Your task to perform on an android device: turn off priority inbox in the gmail app Image 0: 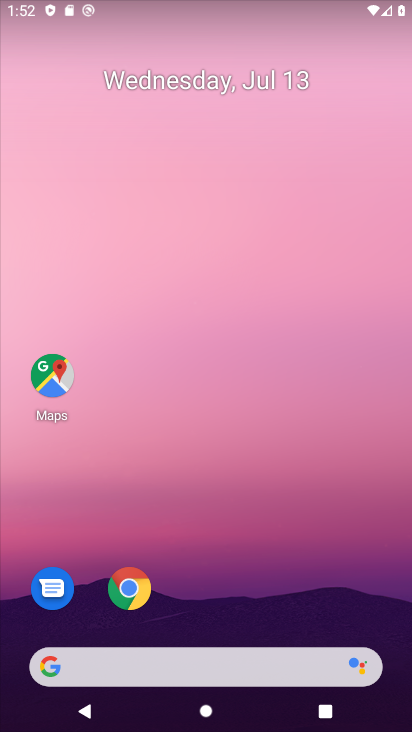
Step 0: drag from (233, 171) to (237, 105)
Your task to perform on an android device: turn off priority inbox in the gmail app Image 1: 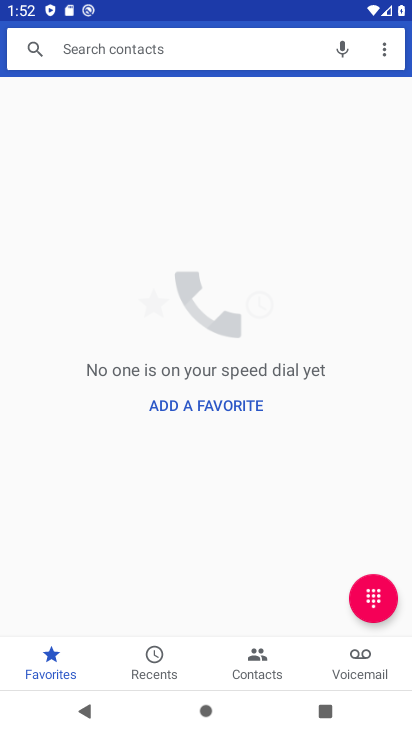
Step 1: drag from (221, 542) to (215, 236)
Your task to perform on an android device: turn off priority inbox in the gmail app Image 2: 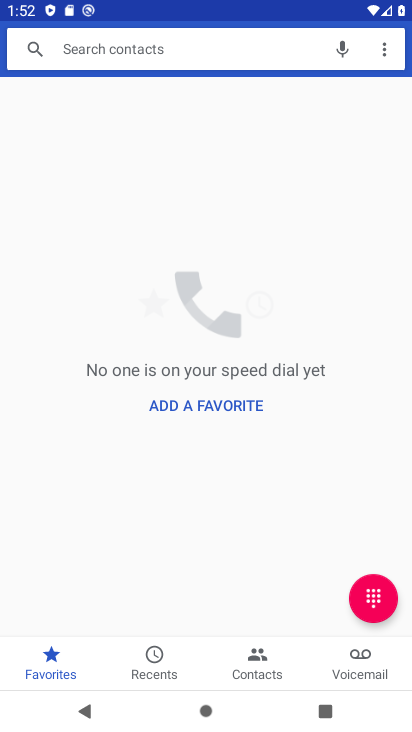
Step 2: click (243, 528)
Your task to perform on an android device: turn off priority inbox in the gmail app Image 3: 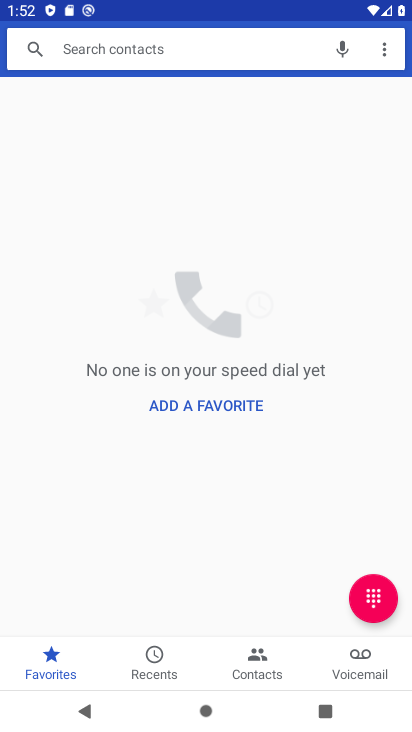
Step 3: press home button
Your task to perform on an android device: turn off priority inbox in the gmail app Image 4: 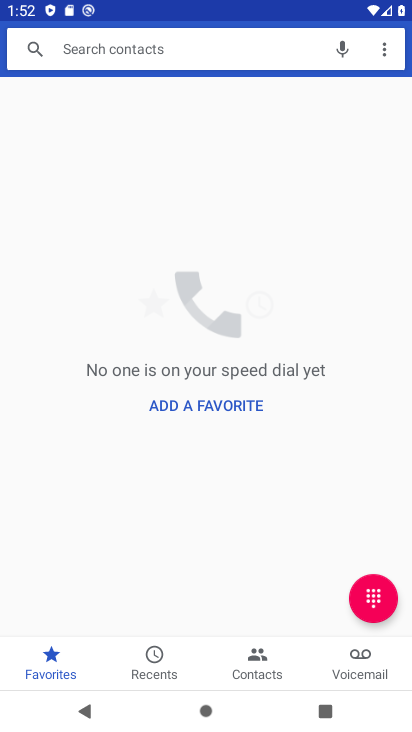
Step 4: drag from (191, 268) to (218, 82)
Your task to perform on an android device: turn off priority inbox in the gmail app Image 5: 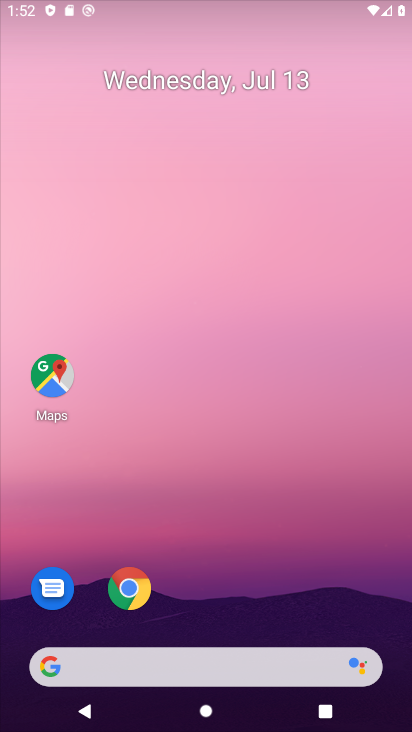
Step 5: drag from (235, 545) to (260, 97)
Your task to perform on an android device: turn off priority inbox in the gmail app Image 6: 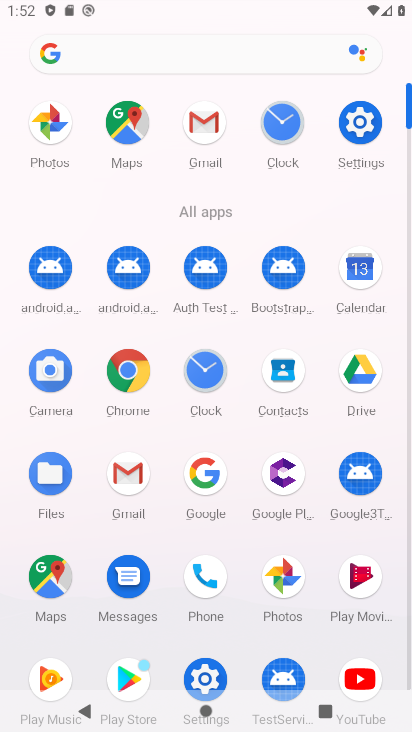
Step 6: click (124, 478)
Your task to perform on an android device: turn off priority inbox in the gmail app Image 7: 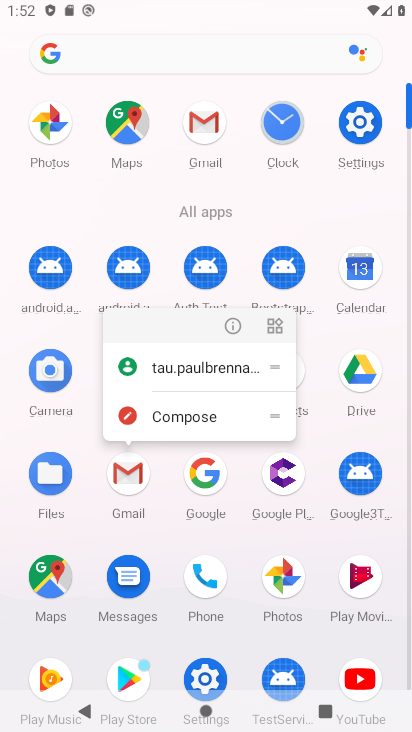
Step 7: click (230, 325)
Your task to perform on an android device: turn off priority inbox in the gmail app Image 8: 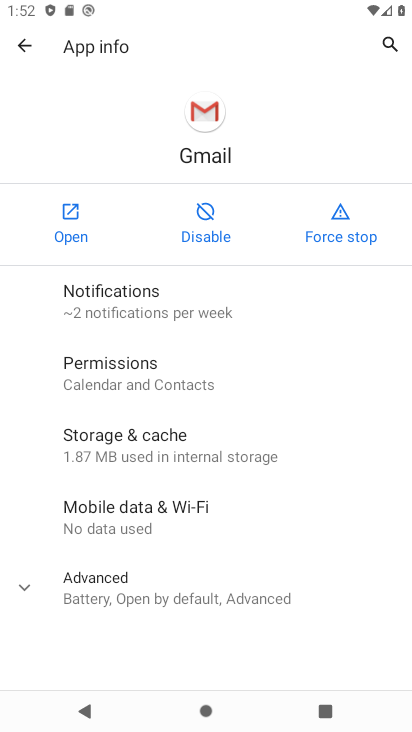
Step 8: click (66, 225)
Your task to perform on an android device: turn off priority inbox in the gmail app Image 9: 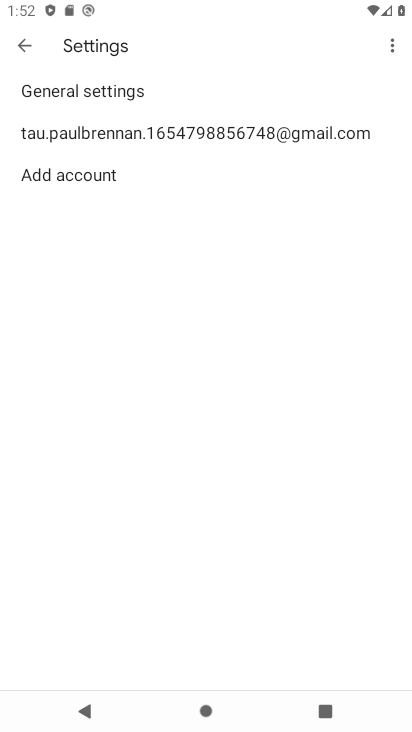
Step 9: click (156, 138)
Your task to perform on an android device: turn off priority inbox in the gmail app Image 10: 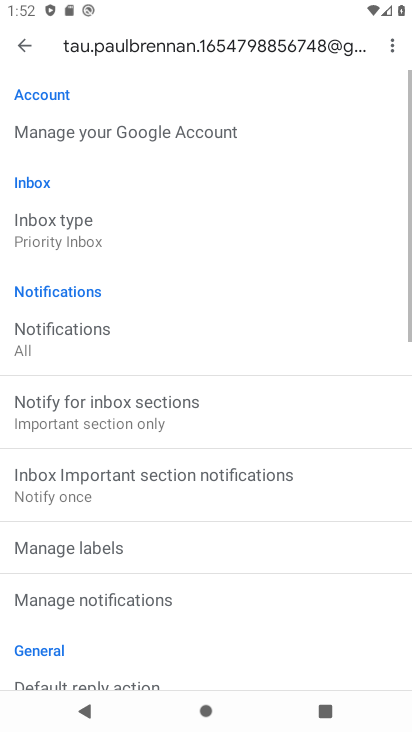
Step 10: drag from (211, 400) to (224, 168)
Your task to perform on an android device: turn off priority inbox in the gmail app Image 11: 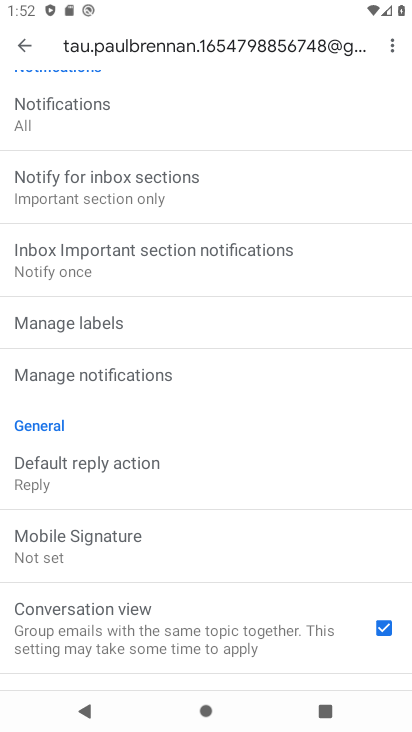
Step 11: drag from (208, 524) to (242, 186)
Your task to perform on an android device: turn off priority inbox in the gmail app Image 12: 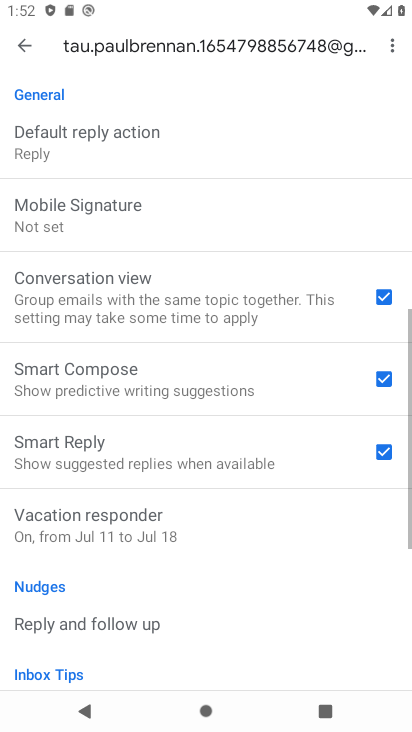
Step 12: drag from (178, 539) to (267, 126)
Your task to perform on an android device: turn off priority inbox in the gmail app Image 13: 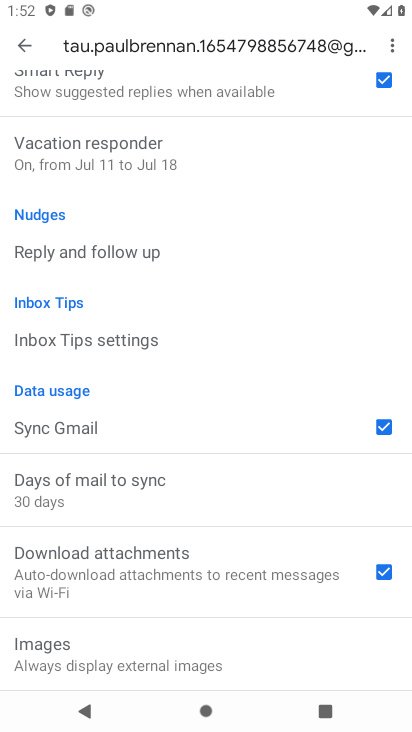
Step 13: drag from (166, 563) to (171, 308)
Your task to perform on an android device: turn off priority inbox in the gmail app Image 14: 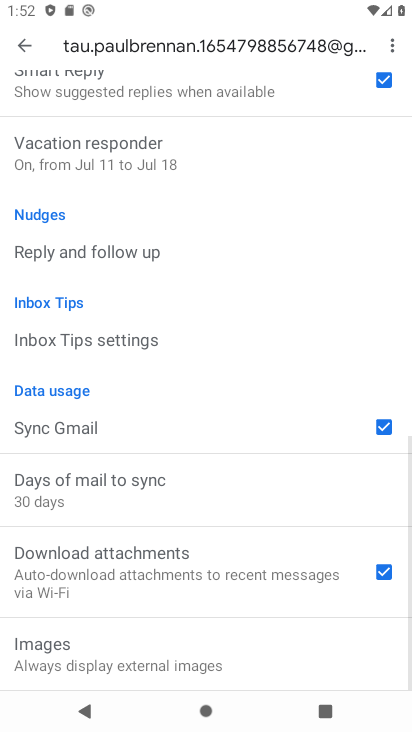
Step 14: drag from (252, 652) to (320, 287)
Your task to perform on an android device: turn off priority inbox in the gmail app Image 15: 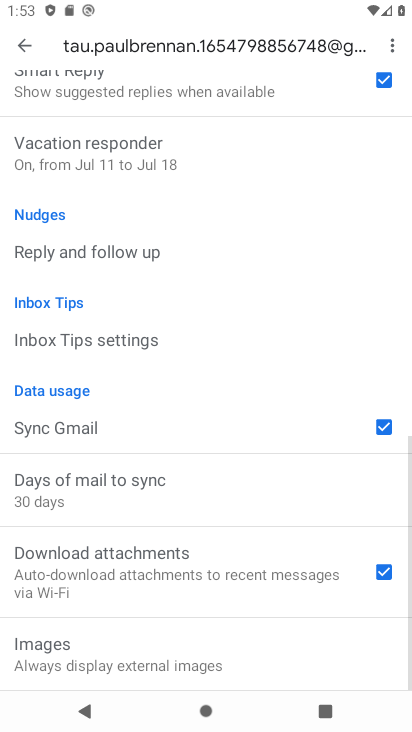
Step 15: drag from (232, 364) to (269, 720)
Your task to perform on an android device: turn off priority inbox in the gmail app Image 16: 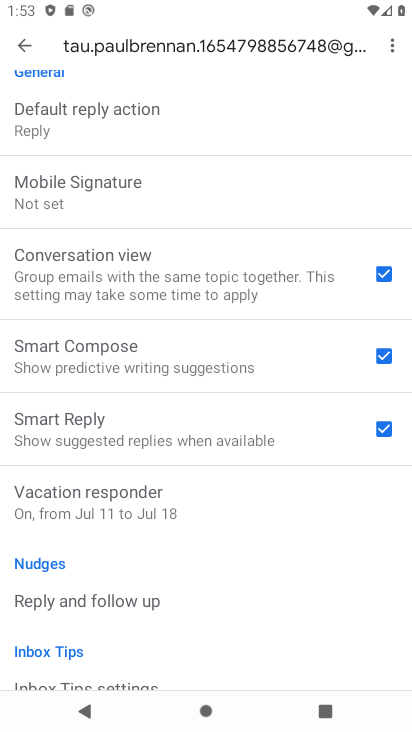
Step 16: drag from (181, 226) to (295, 654)
Your task to perform on an android device: turn off priority inbox in the gmail app Image 17: 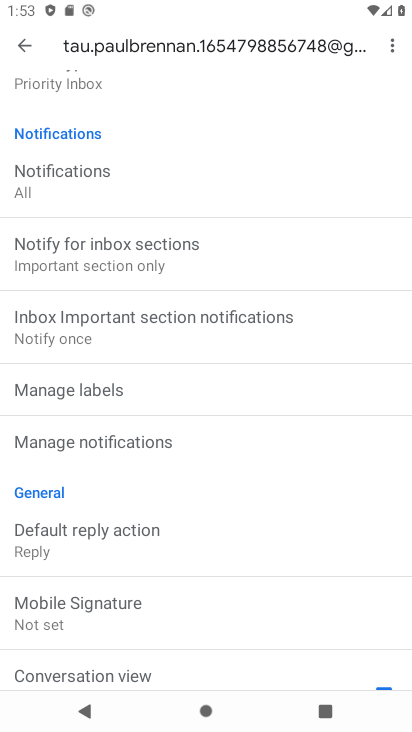
Step 17: drag from (196, 164) to (214, 678)
Your task to perform on an android device: turn off priority inbox in the gmail app Image 18: 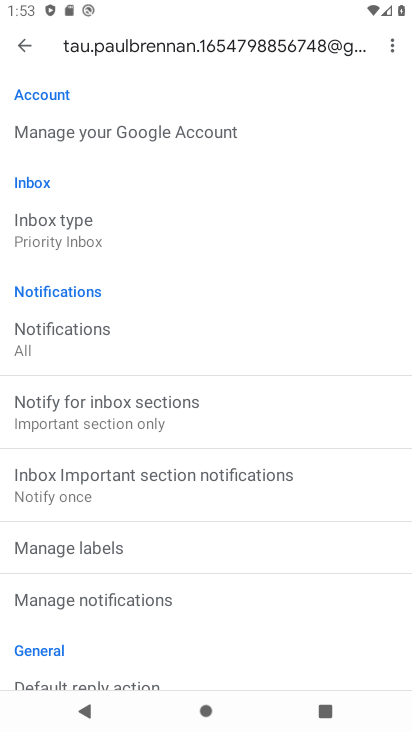
Step 18: click (81, 222)
Your task to perform on an android device: turn off priority inbox in the gmail app Image 19: 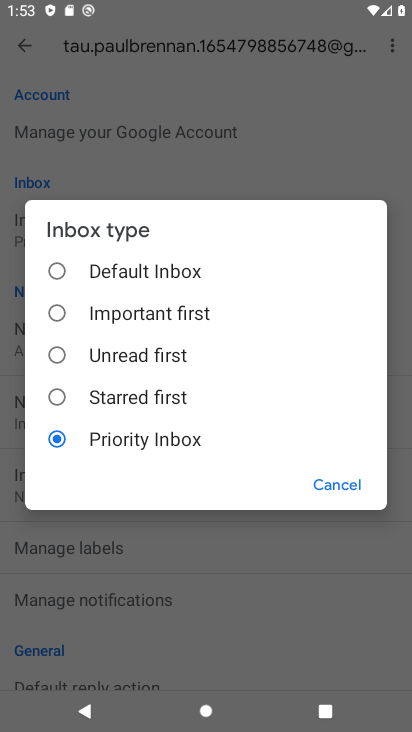
Step 19: click (97, 255)
Your task to perform on an android device: turn off priority inbox in the gmail app Image 20: 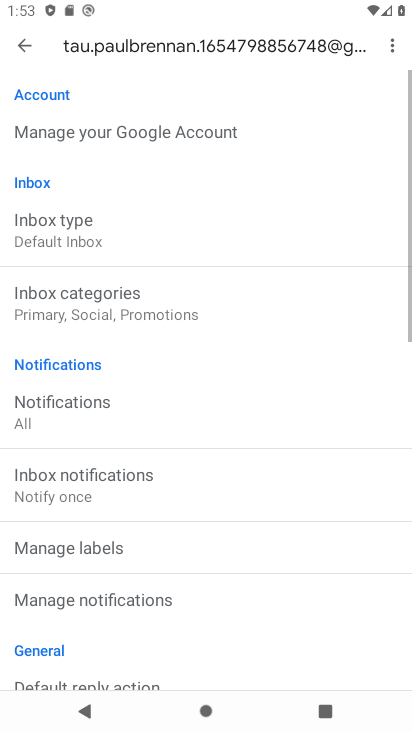
Step 20: click (106, 227)
Your task to perform on an android device: turn off priority inbox in the gmail app Image 21: 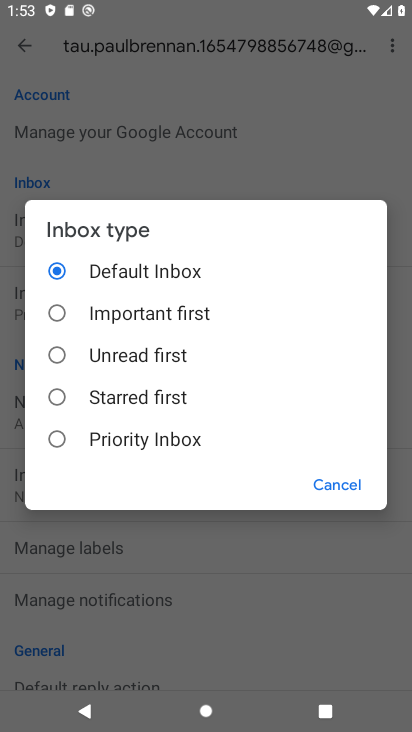
Step 21: task complete